Your task to perform on an android device: add a label to a message in the gmail app Image 0: 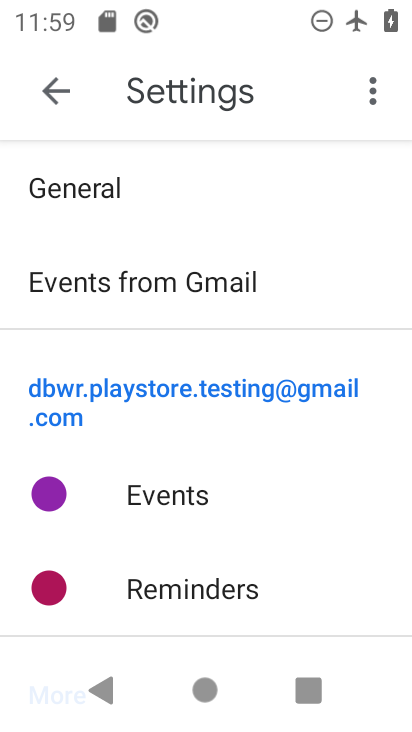
Step 0: press home button
Your task to perform on an android device: add a label to a message in the gmail app Image 1: 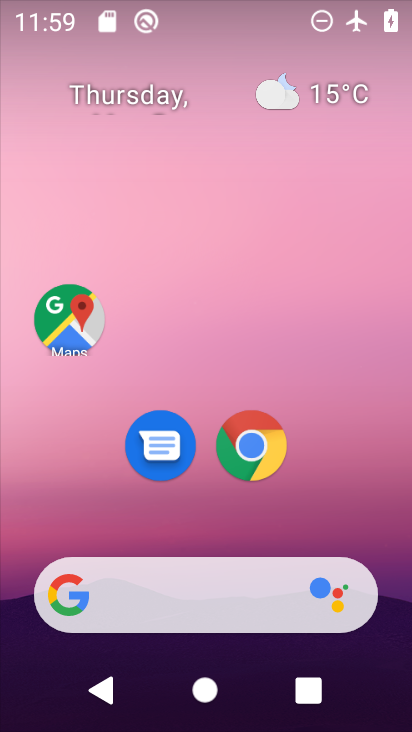
Step 1: drag from (249, 524) to (197, 29)
Your task to perform on an android device: add a label to a message in the gmail app Image 2: 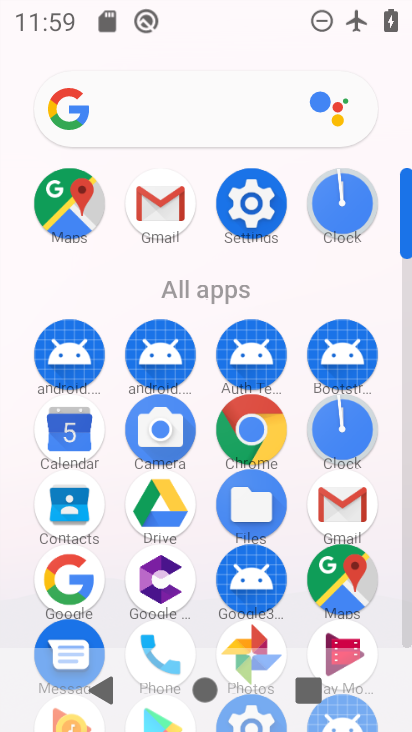
Step 2: click (167, 202)
Your task to perform on an android device: add a label to a message in the gmail app Image 3: 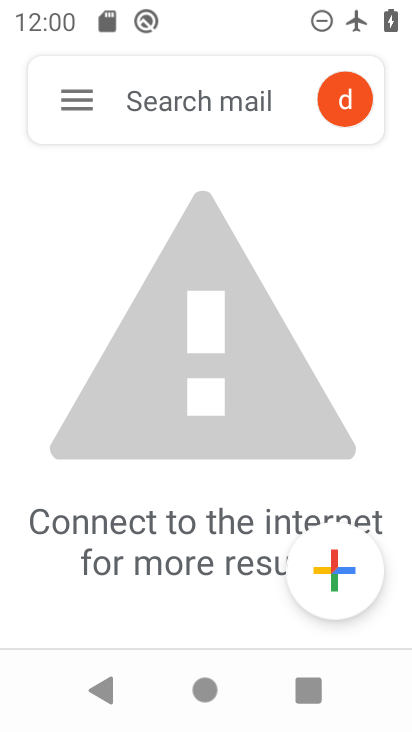
Step 3: task complete